Your task to perform on an android device: Open battery settings Image 0: 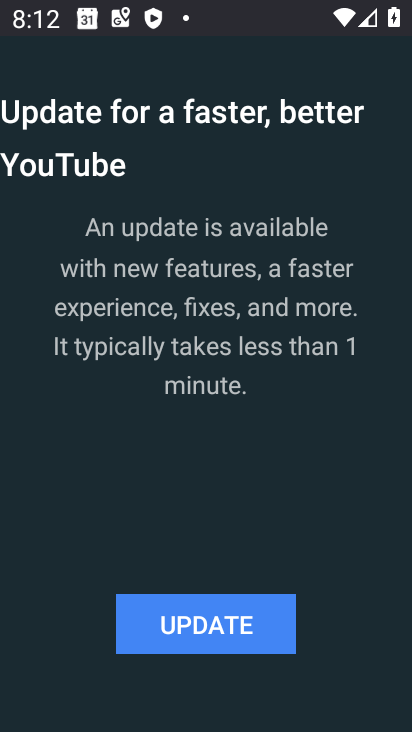
Step 0: press home button
Your task to perform on an android device: Open battery settings Image 1: 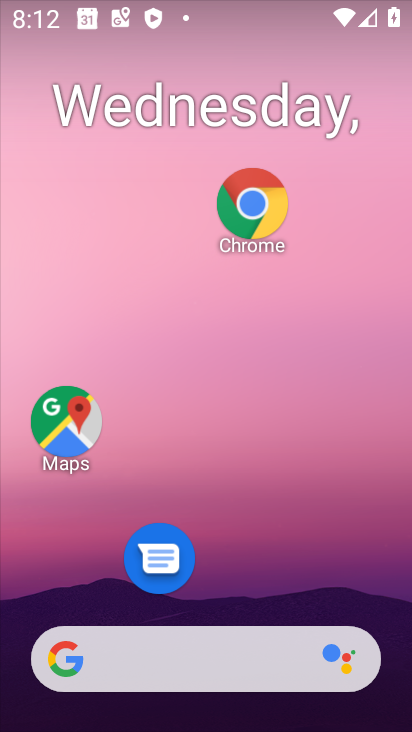
Step 1: drag from (228, 589) to (245, 39)
Your task to perform on an android device: Open battery settings Image 2: 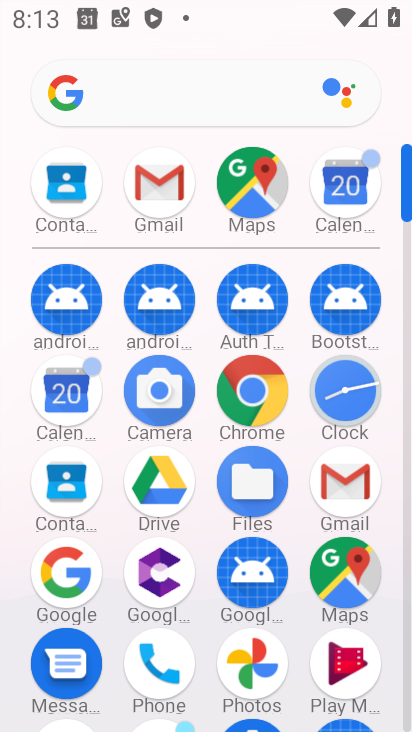
Step 2: drag from (205, 594) to (224, 146)
Your task to perform on an android device: Open battery settings Image 3: 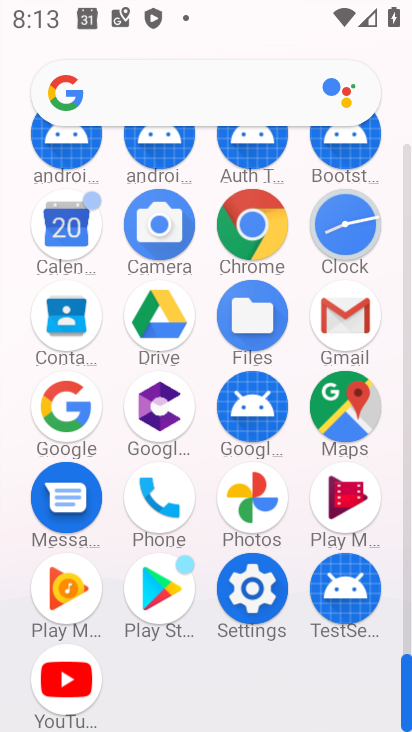
Step 3: click (256, 593)
Your task to perform on an android device: Open battery settings Image 4: 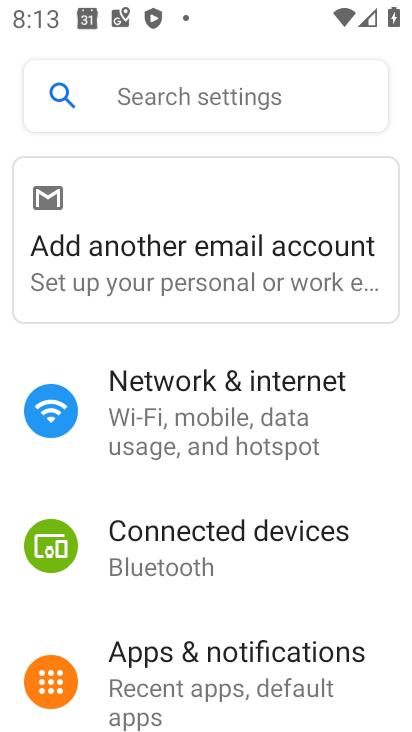
Step 4: drag from (211, 667) to (220, 161)
Your task to perform on an android device: Open battery settings Image 5: 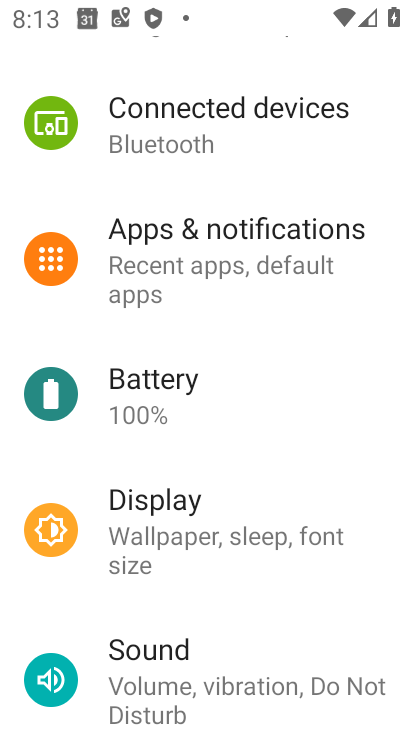
Step 5: click (194, 393)
Your task to perform on an android device: Open battery settings Image 6: 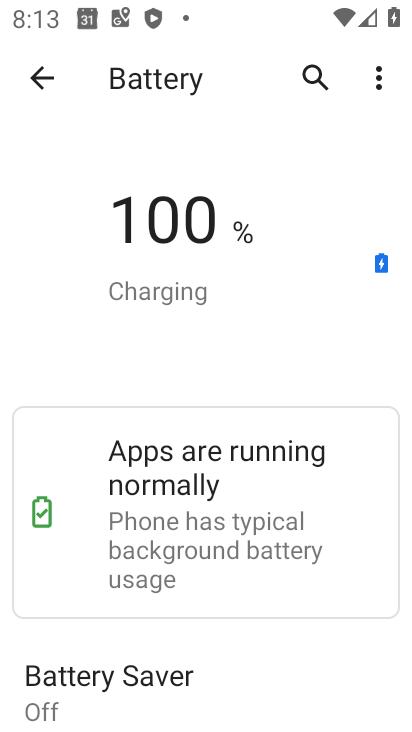
Step 6: task complete